Your task to perform on an android device: stop showing notifications on the lock screen Image 0: 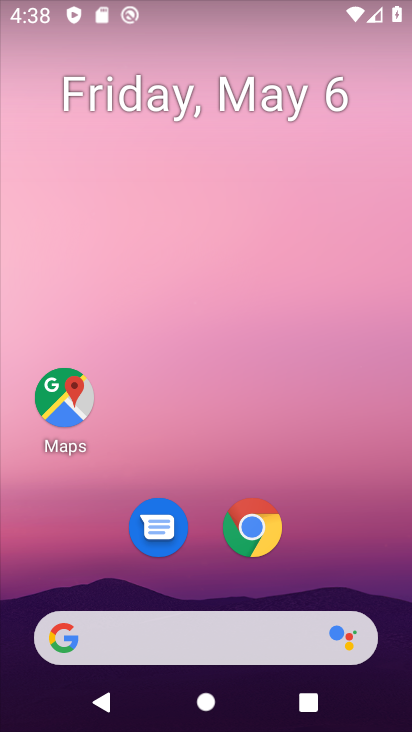
Step 0: drag from (226, 568) to (144, 9)
Your task to perform on an android device: stop showing notifications on the lock screen Image 1: 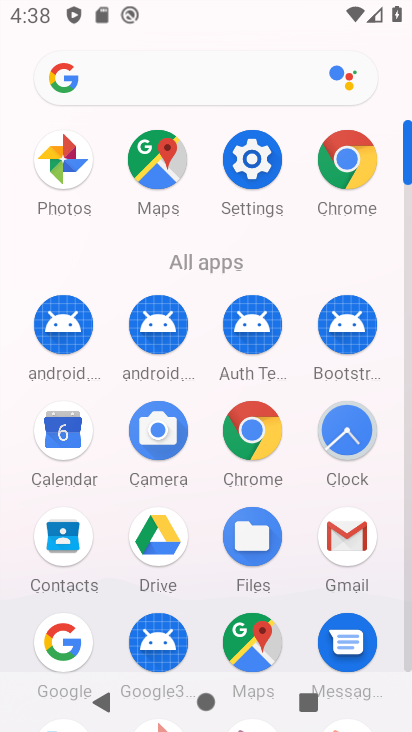
Step 1: click (251, 166)
Your task to perform on an android device: stop showing notifications on the lock screen Image 2: 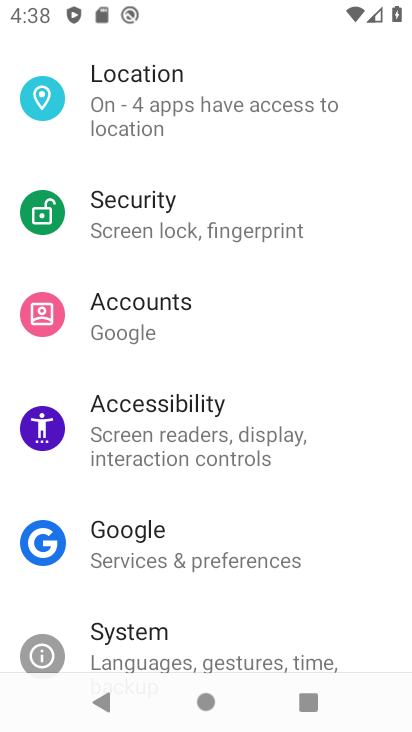
Step 2: drag from (157, 136) to (175, 536)
Your task to perform on an android device: stop showing notifications on the lock screen Image 3: 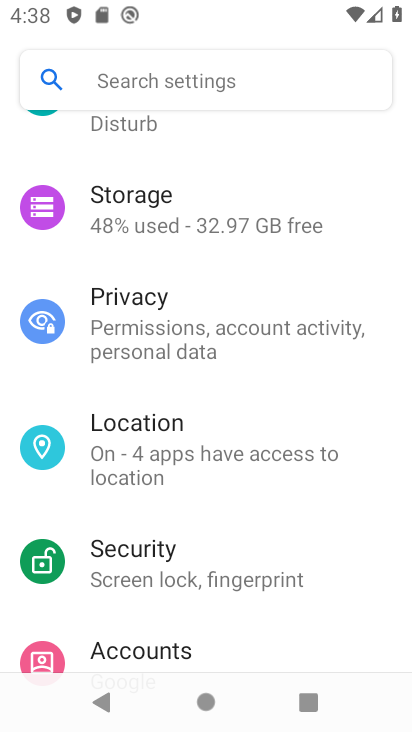
Step 3: drag from (152, 289) to (152, 544)
Your task to perform on an android device: stop showing notifications on the lock screen Image 4: 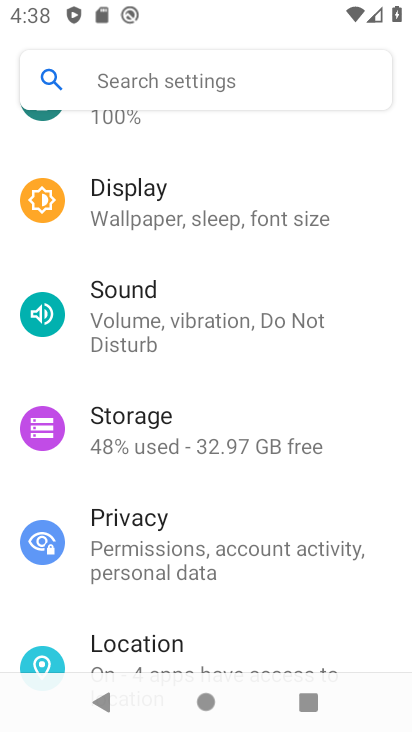
Step 4: drag from (179, 438) to (177, 677)
Your task to perform on an android device: stop showing notifications on the lock screen Image 5: 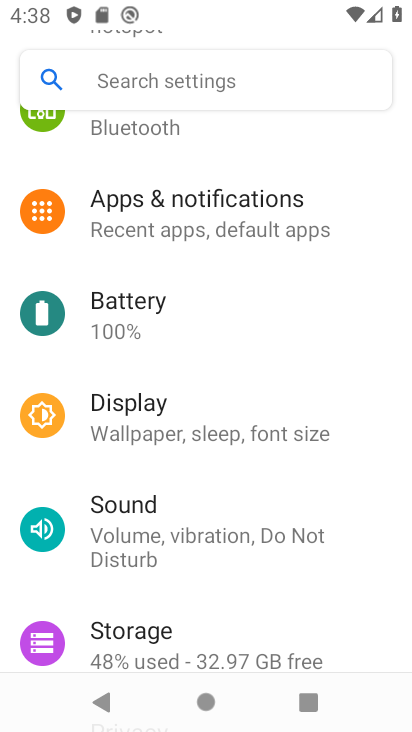
Step 5: click (193, 205)
Your task to perform on an android device: stop showing notifications on the lock screen Image 6: 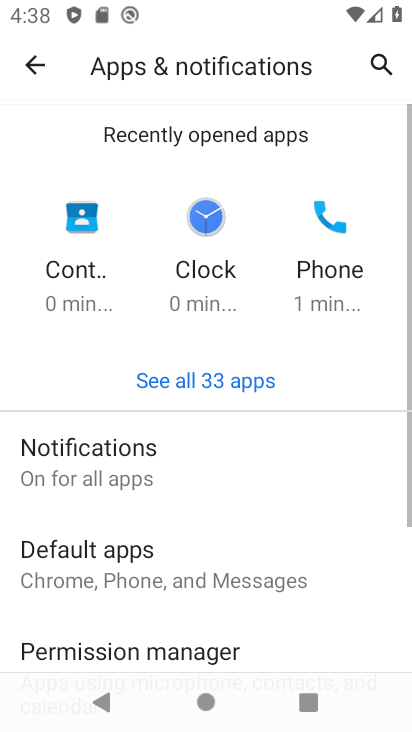
Step 6: click (179, 489)
Your task to perform on an android device: stop showing notifications on the lock screen Image 7: 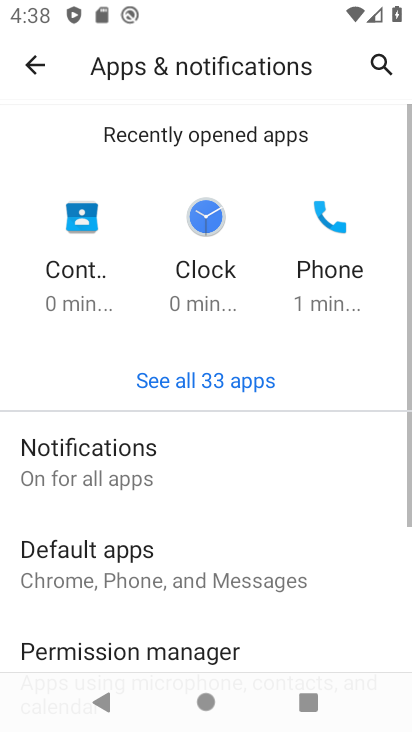
Step 7: drag from (188, 559) to (136, 96)
Your task to perform on an android device: stop showing notifications on the lock screen Image 8: 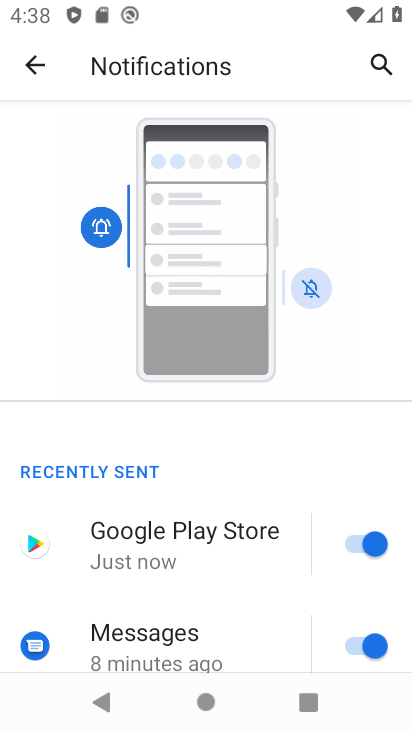
Step 8: drag from (223, 603) to (129, 11)
Your task to perform on an android device: stop showing notifications on the lock screen Image 9: 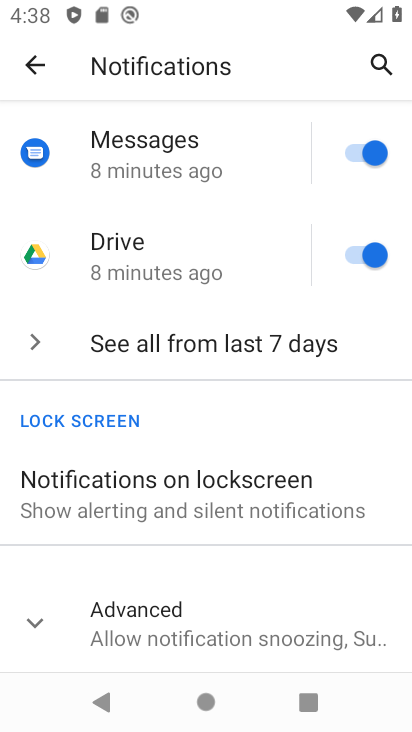
Step 9: click (188, 492)
Your task to perform on an android device: stop showing notifications on the lock screen Image 10: 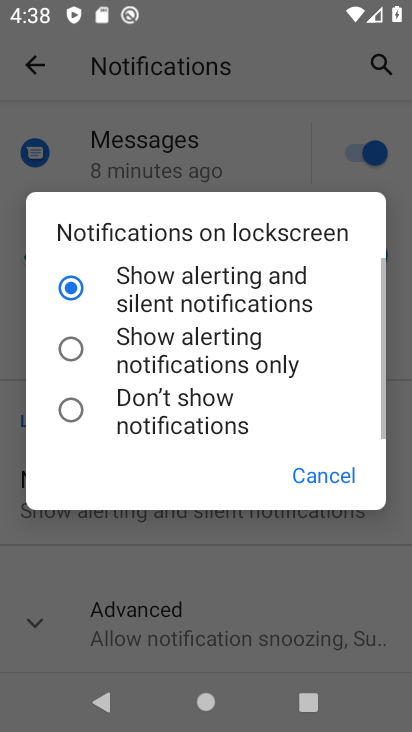
Step 10: click (177, 431)
Your task to perform on an android device: stop showing notifications on the lock screen Image 11: 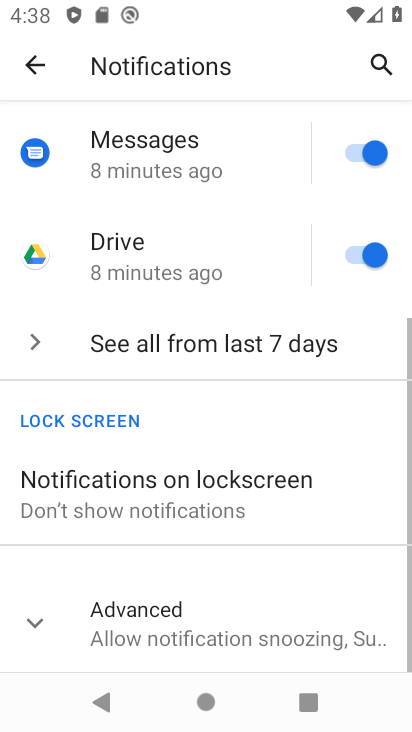
Step 11: task complete